Your task to perform on an android device: clear all cookies in the chrome app Image 0: 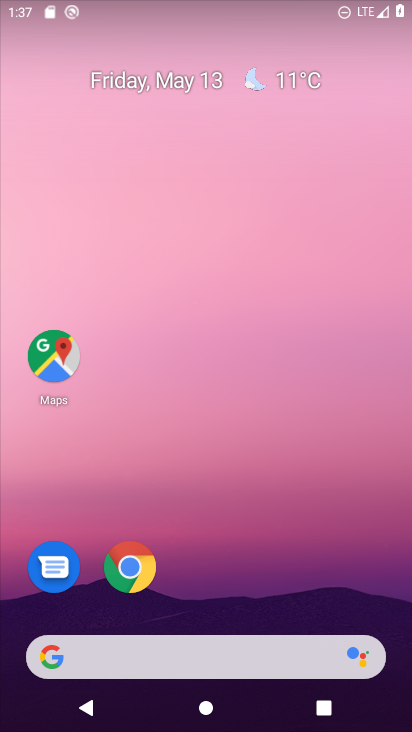
Step 0: press home button
Your task to perform on an android device: clear all cookies in the chrome app Image 1: 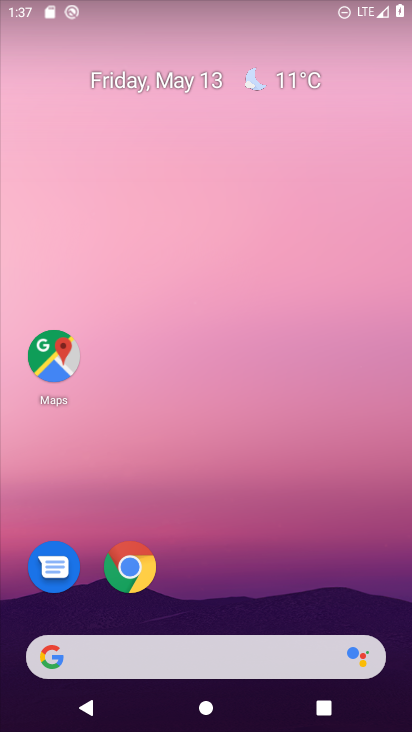
Step 1: click (131, 566)
Your task to perform on an android device: clear all cookies in the chrome app Image 2: 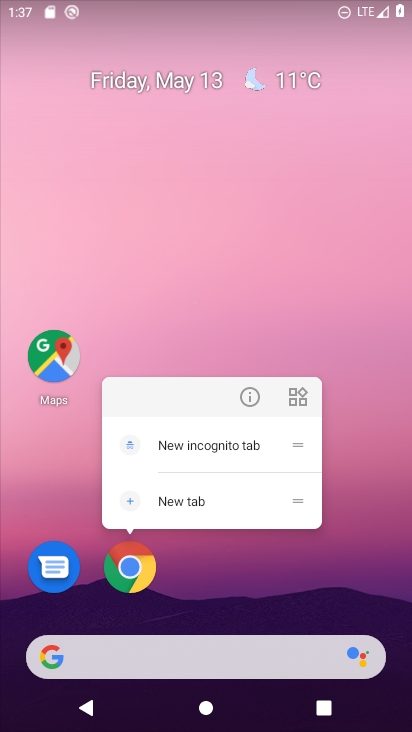
Step 2: click (130, 563)
Your task to perform on an android device: clear all cookies in the chrome app Image 3: 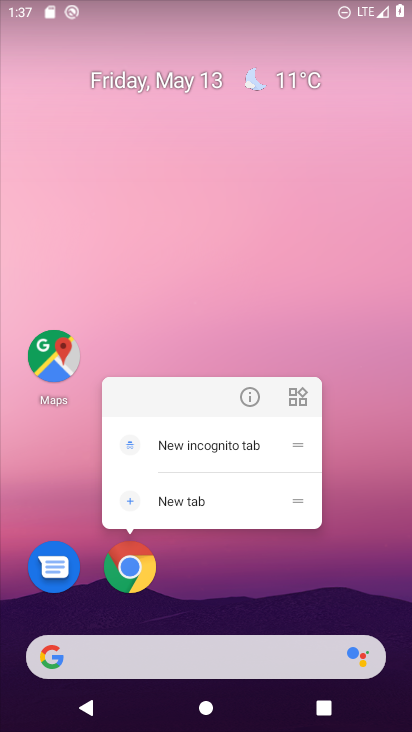
Step 3: click (130, 563)
Your task to perform on an android device: clear all cookies in the chrome app Image 4: 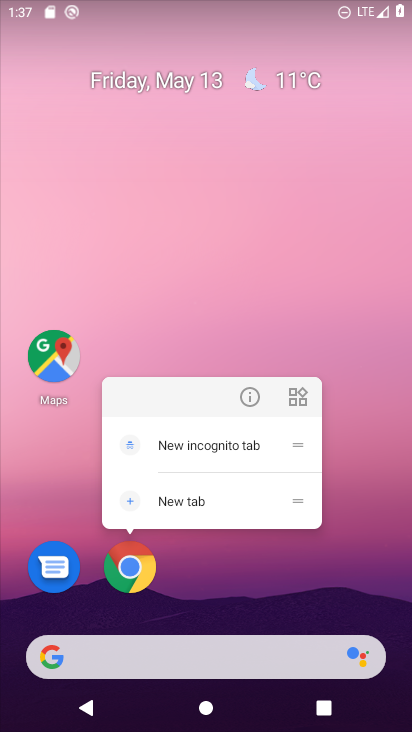
Step 4: click (281, 604)
Your task to perform on an android device: clear all cookies in the chrome app Image 5: 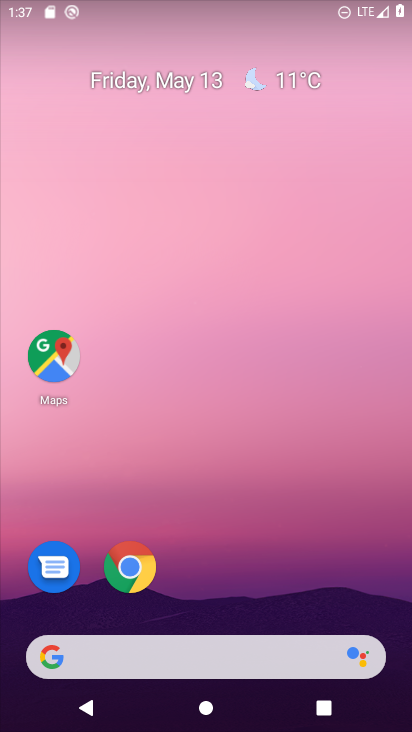
Step 5: drag from (285, 596) to (314, 64)
Your task to perform on an android device: clear all cookies in the chrome app Image 6: 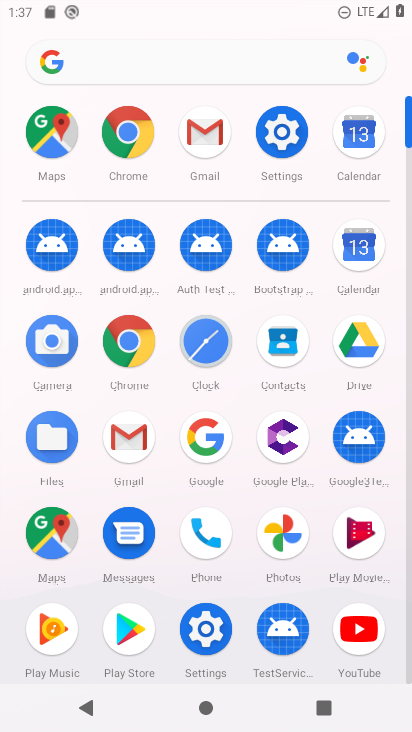
Step 6: click (120, 338)
Your task to perform on an android device: clear all cookies in the chrome app Image 7: 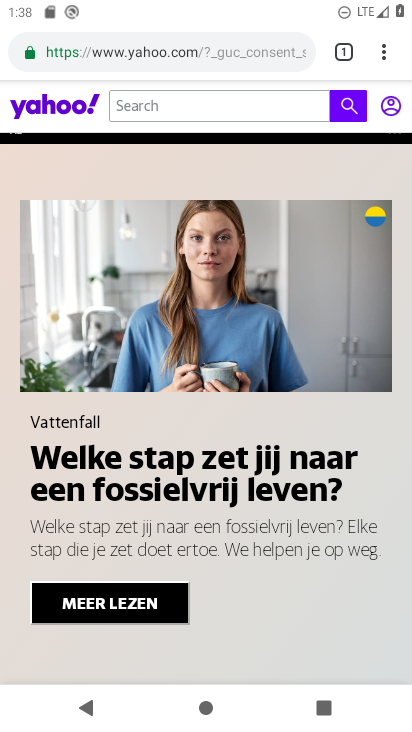
Step 7: click (379, 48)
Your task to perform on an android device: clear all cookies in the chrome app Image 8: 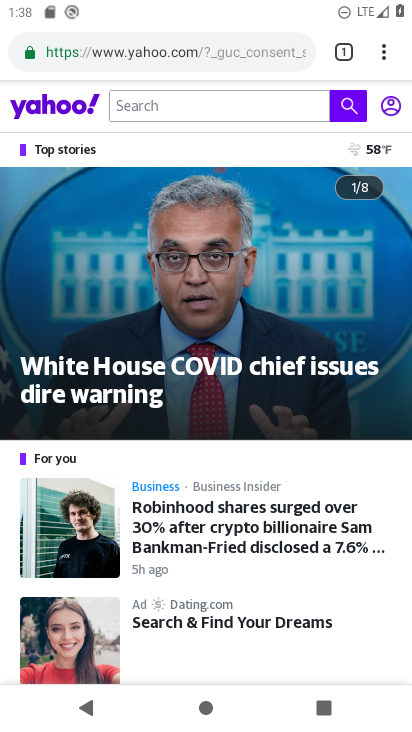
Step 8: click (386, 46)
Your task to perform on an android device: clear all cookies in the chrome app Image 9: 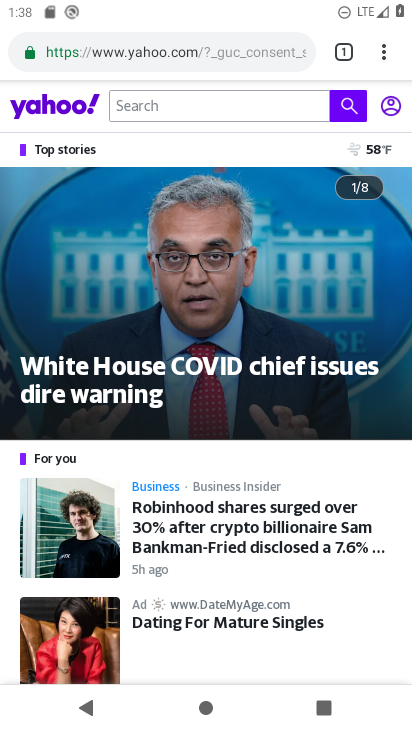
Step 9: click (382, 47)
Your task to perform on an android device: clear all cookies in the chrome app Image 10: 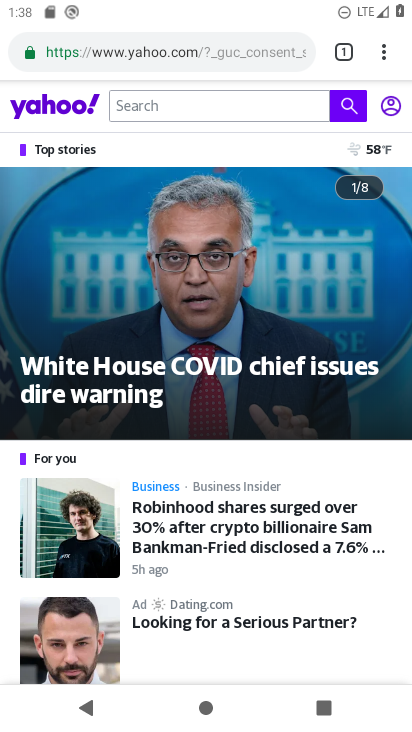
Step 10: click (379, 47)
Your task to perform on an android device: clear all cookies in the chrome app Image 11: 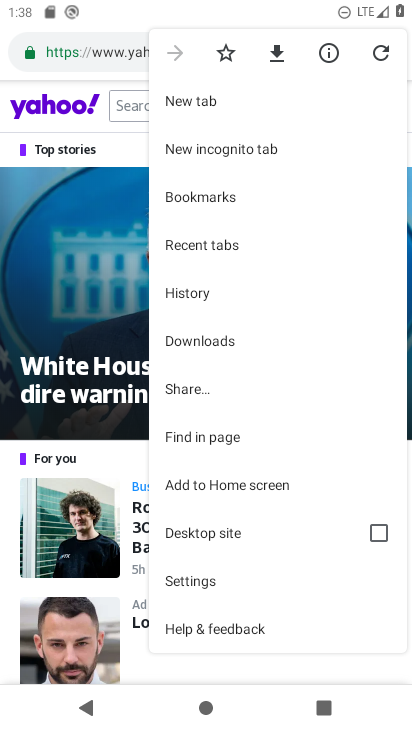
Step 11: click (215, 291)
Your task to perform on an android device: clear all cookies in the chrome app Image 12: 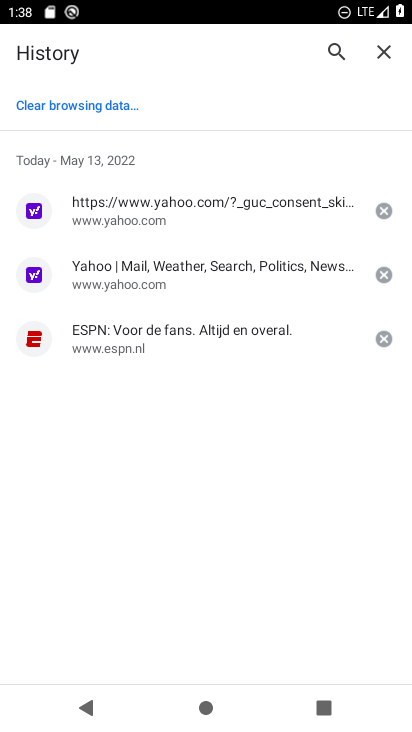
Step 12: click (89, 107)
Your task to perform on an android device: clear all cookies in the chrome app Image 13: 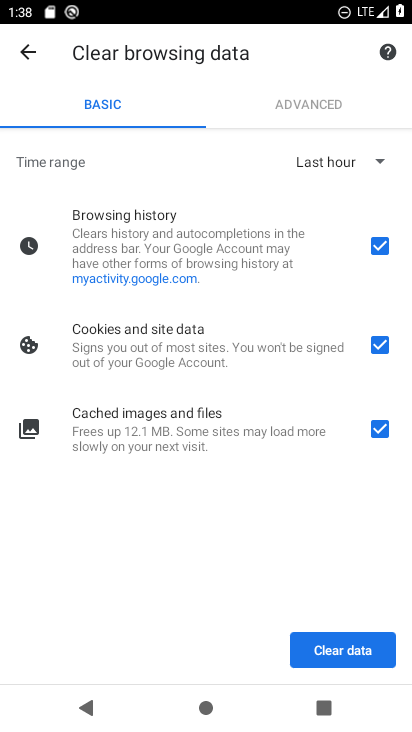
Step 13: click (380, 242)
Your task to perform on an android device: clear all cookies in the chrome app Image 14: 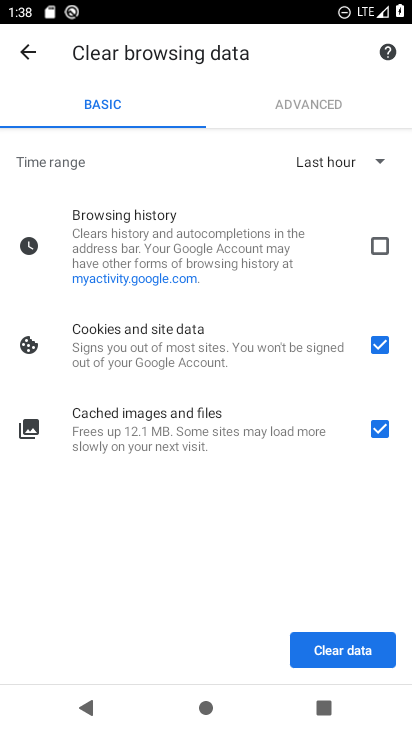
Step 14: click (375, 431)
Your task to perform on an android device: clear all cookies in the chrome app Image 15: 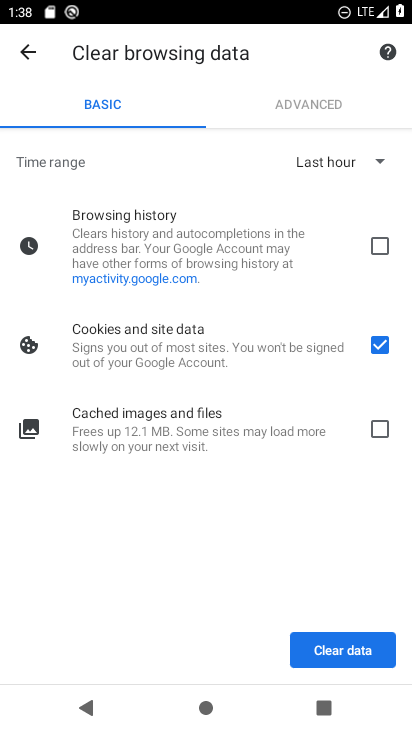
Step 15: click (360, 159)
Your task to perform on an android device: clear all cookies in the chrome app Image 16: 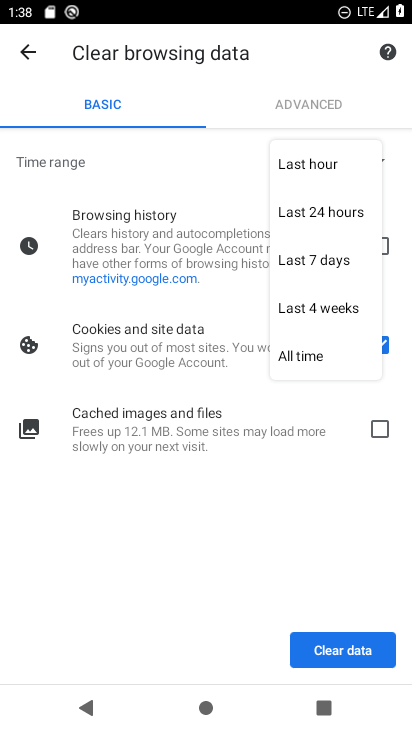
Step 16: click (304, 355)
Your task to perform on an android device: clear all cookies in the chrome app Image 17: 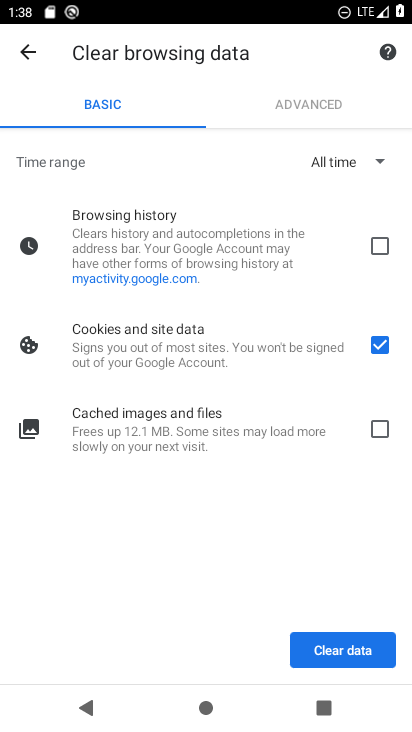
Step 17: click (355, 653)
Your task to perform on an android device: clear all cookies in the chrome app Image 18: 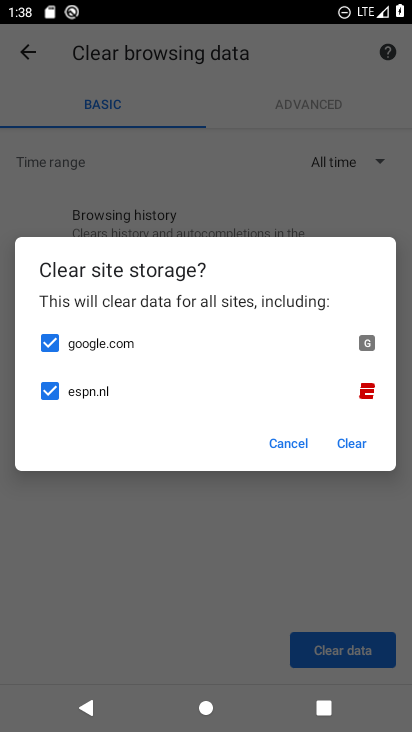
Step 18: click (348, 441)
Your task to perform on an android device: clear all cookies in the chrome app Image 19: 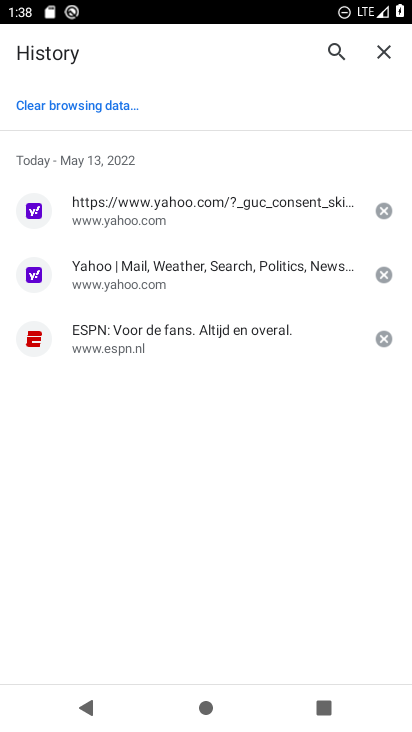
Step 19: task complete